Your task to perform on an android device: turn off priority inbox in the gmail app Image 0: 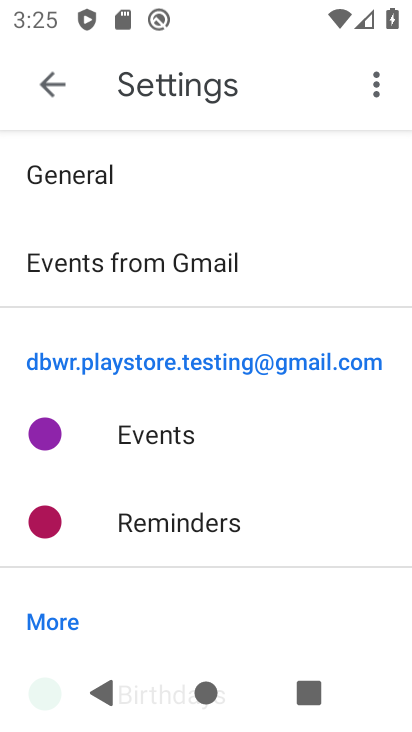
Step 0: press home button
Your task to perform on an android device: turn off priority inbox in the gmail app Image 1: 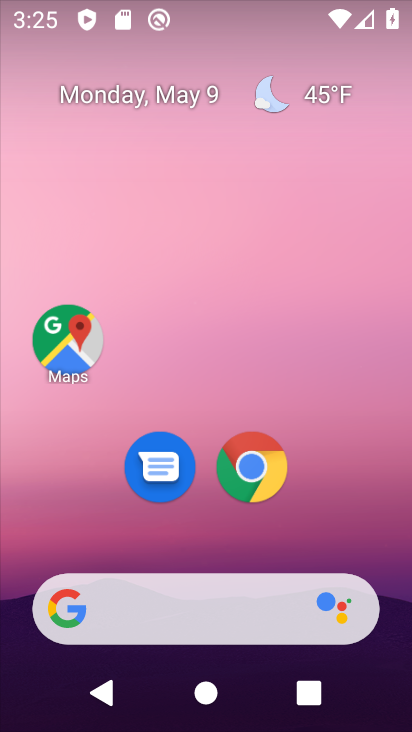
Step 1: drag from (370, 504) to (364, 206)
Your task to perform on an android device: turn off priority inbox in the gmail app Image 2: 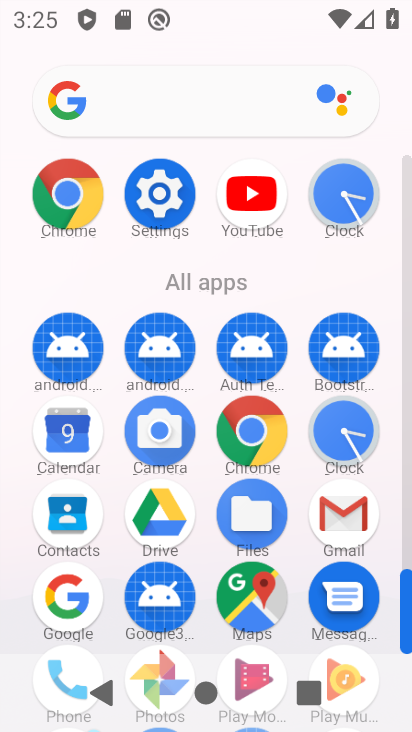
Step 2: click (358, 522)
Your task to perform on an android device: turn off priority inbox in the gmail app Image 3: 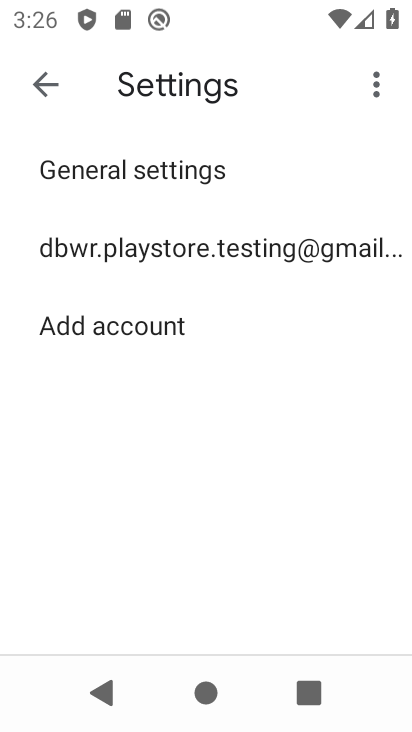
Step 3: click (131, 255)
Your task to perform on an android device: turn off priority inbox in the gmail app Image 4: 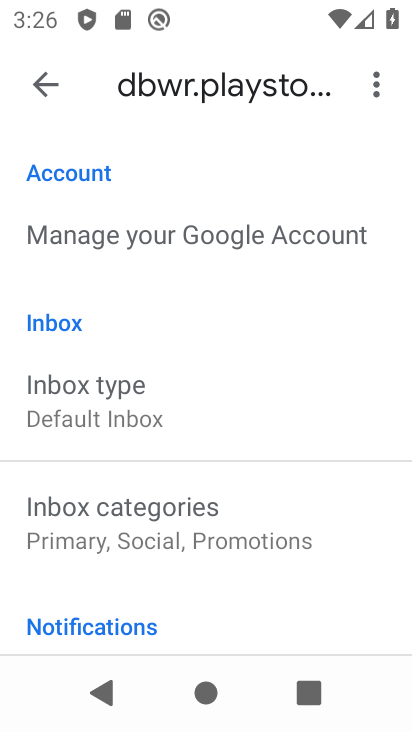
Step 4: click (141, 401)
Your task to perform on an android device: turn off priority inbox in the gmail app Image 5: 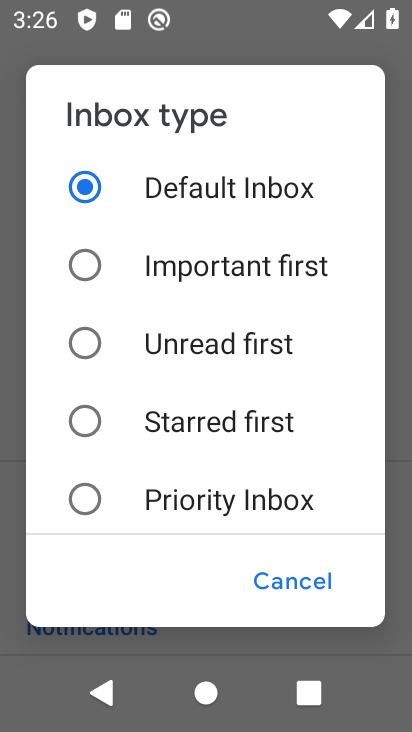
Step 5: task complete